Your task to perform on an android device: Open calendar and show me the second week of next month Image 0: 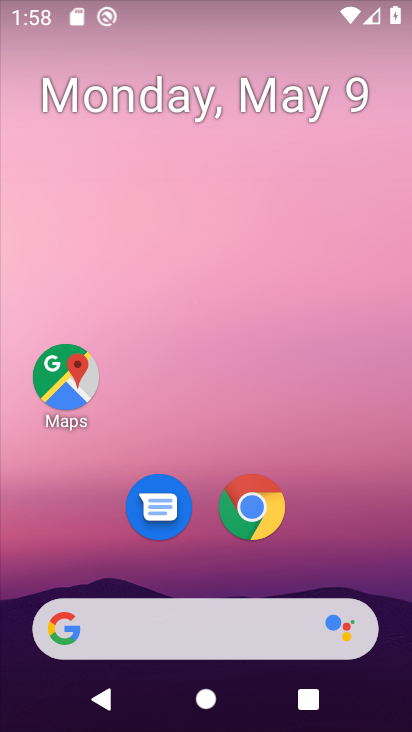
Step 0: drag from (200, 489) to (261, 120)
Your task to perform on an android device: Open calendar and show me the second week of next month Image 1: 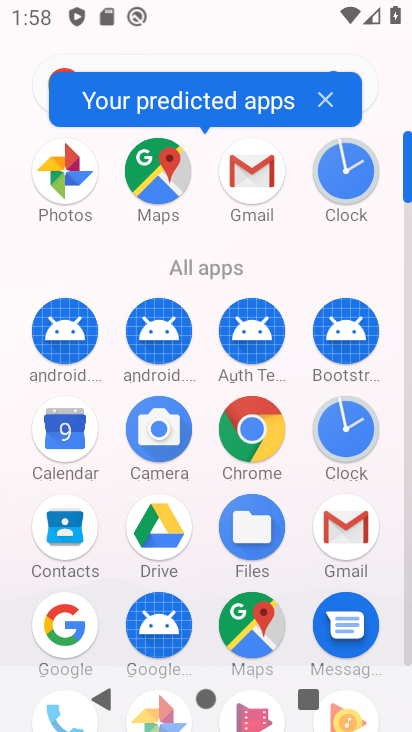
Step 1: click (63, 426)
Your task to perform on an android device: Open calendar and show me the second week of next month Image 2: 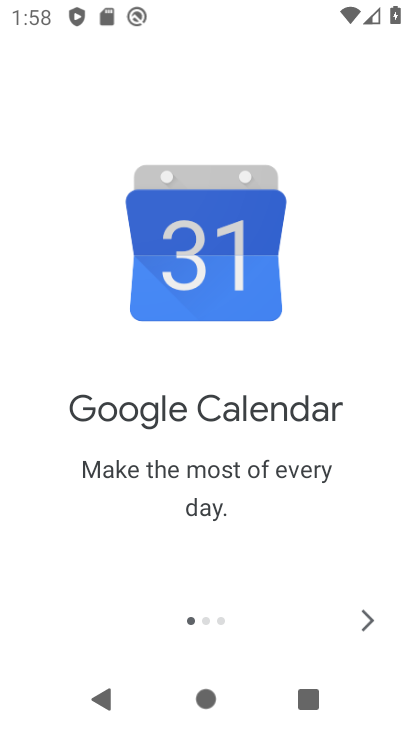
Step 2: click (360, 624)
Your task to perform on an android device: Open calendar and show me the second week of next month Image 3: 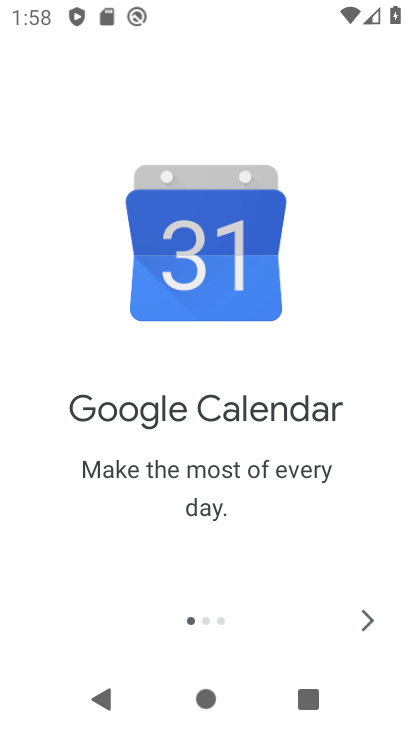
Step 3: click (360, 624)
Your task to perform on an android device: Open calendar and show me the second week of next month Image 4: 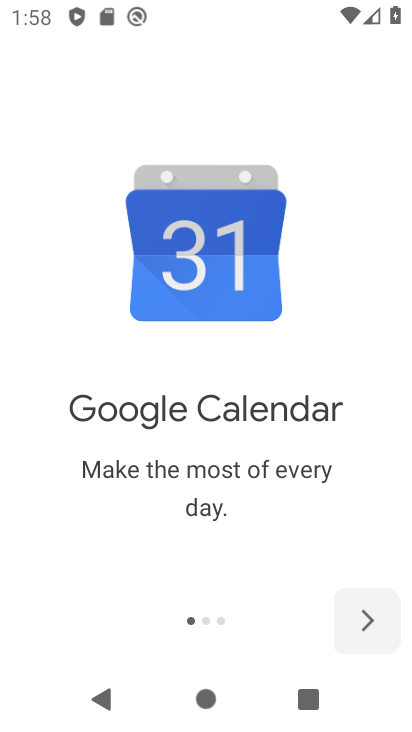
Step 4: click (360, 624)
Your task to perform on an android device: Open calendar and show me the second week of next month Image 5: 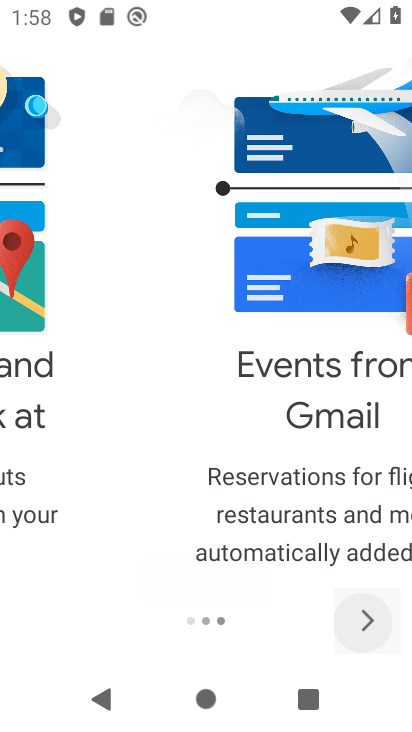
Step 5: click (360, 624)
Your task to perform on an android device: Open calendar and show me the second week of next month Image 6: 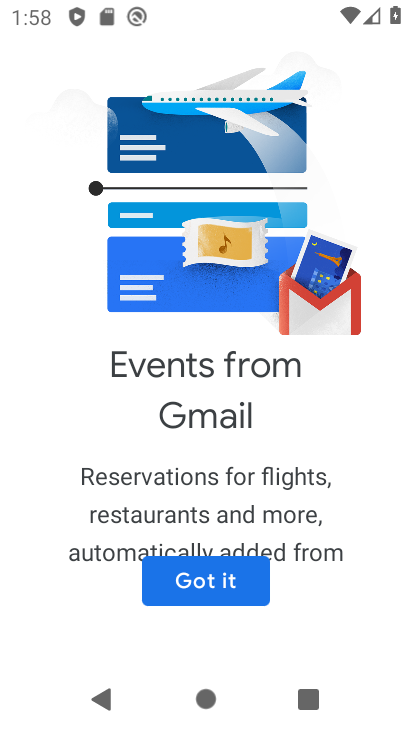
Step 6: click (228, 576)
Your task to perform on an android device: Open calendar and show me the second week of next month Image 7: 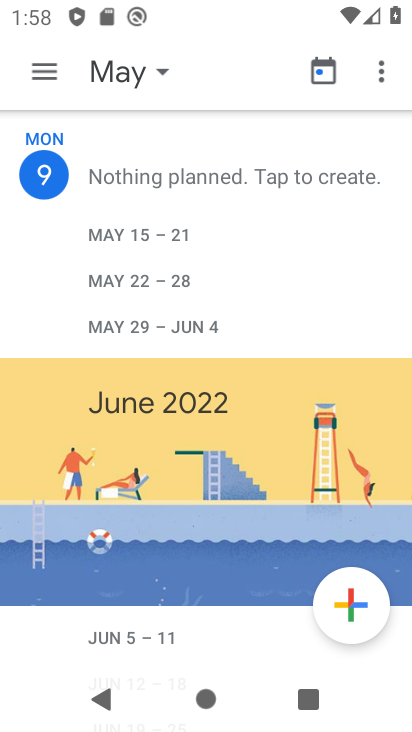
Step 7: click (155, 68)
Your task to perform on an android device: Open calendar and show me the second week of next month Image 8: 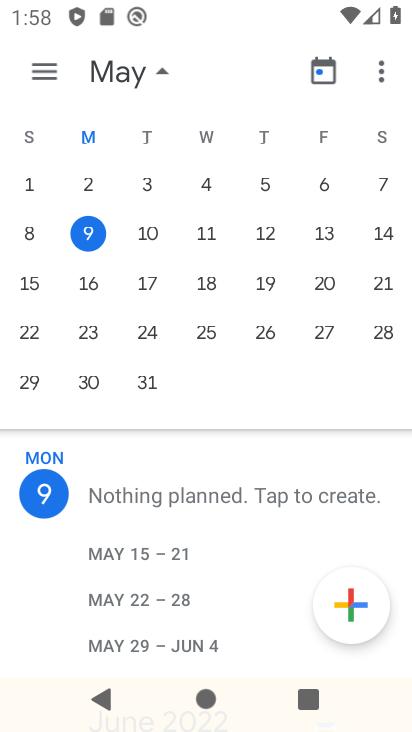
Step 8: drag from (307, 287) to (8, 272)
Your task to perform on an android device: Open calendar and show me the second week of next month Image 9: 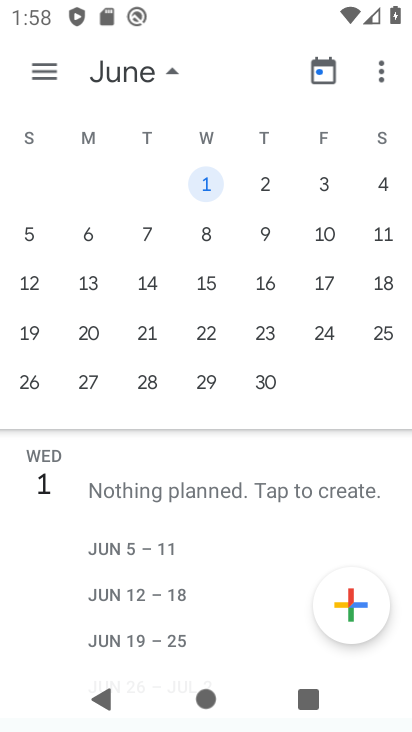
Step 9: click (32, 65)
Your task to perform on an android device: Open calendar and show me the second week of next month Image 10: 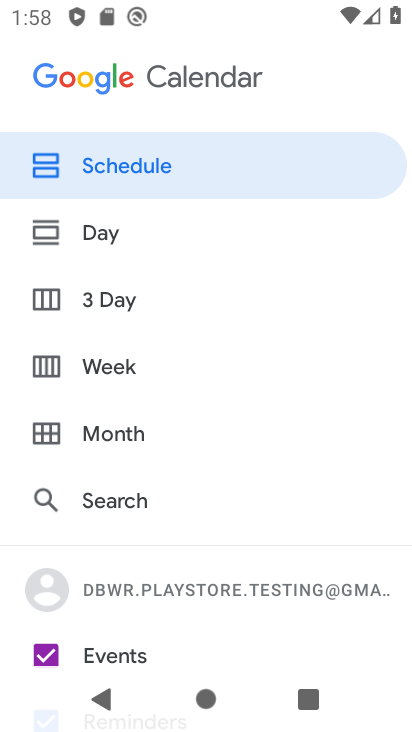
Step 10: click (117, 367)
Your task to perform on an android device: Open calendar and show me the second week of next month Image 11: 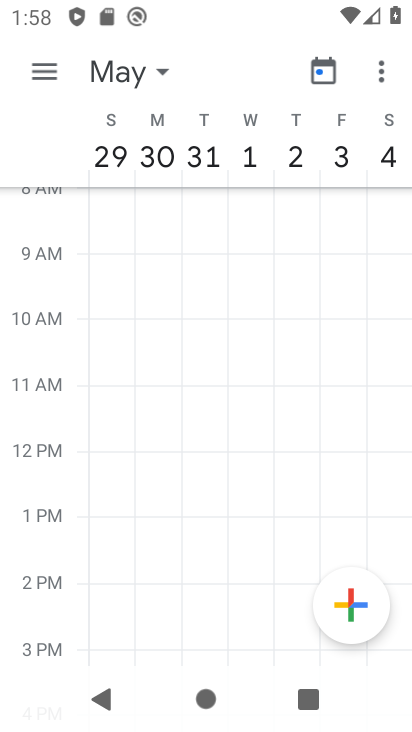
Step 11: task complete